Your task to perform on an android device: install app "LinkedIn" Image 0: 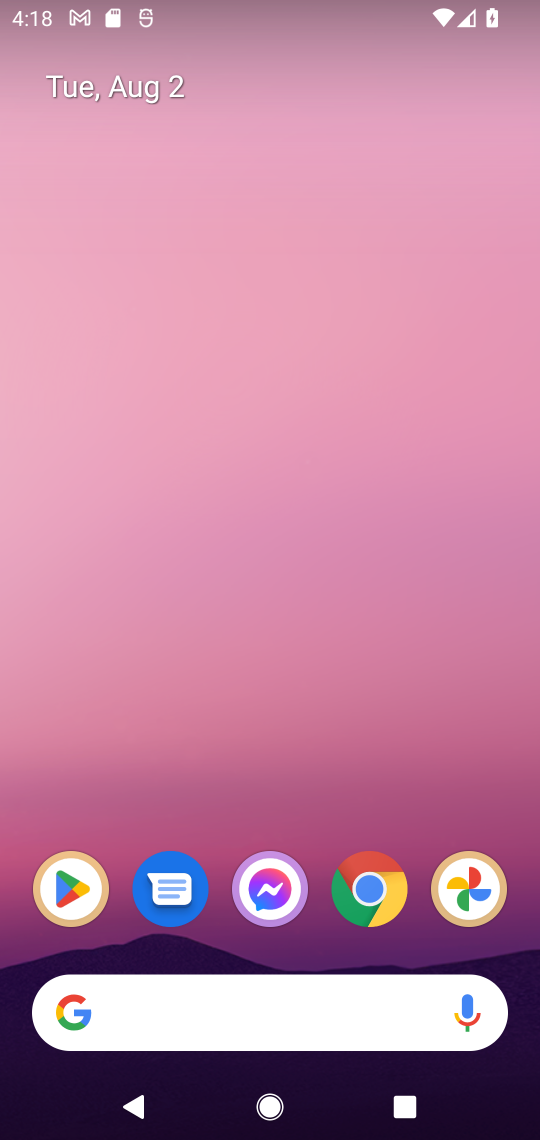
Step 0: press home button
Your task to perform on an android device: install app "LinkedIn" Image 1: 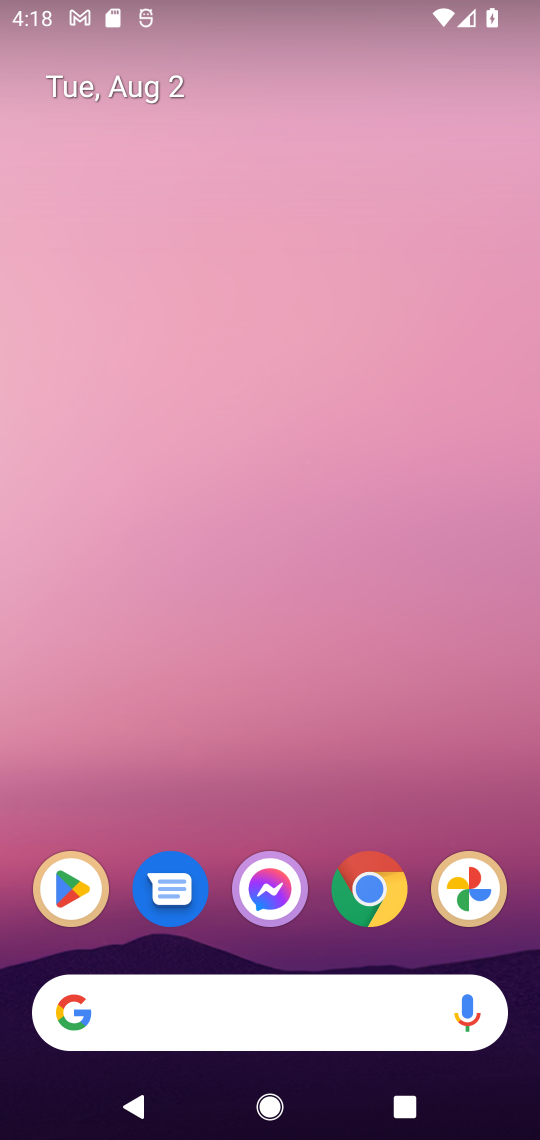
Step 1: drag from (415, 807) to (398, 99)
Your task to perform on an android device: install app "LinkedIn" Image 2: 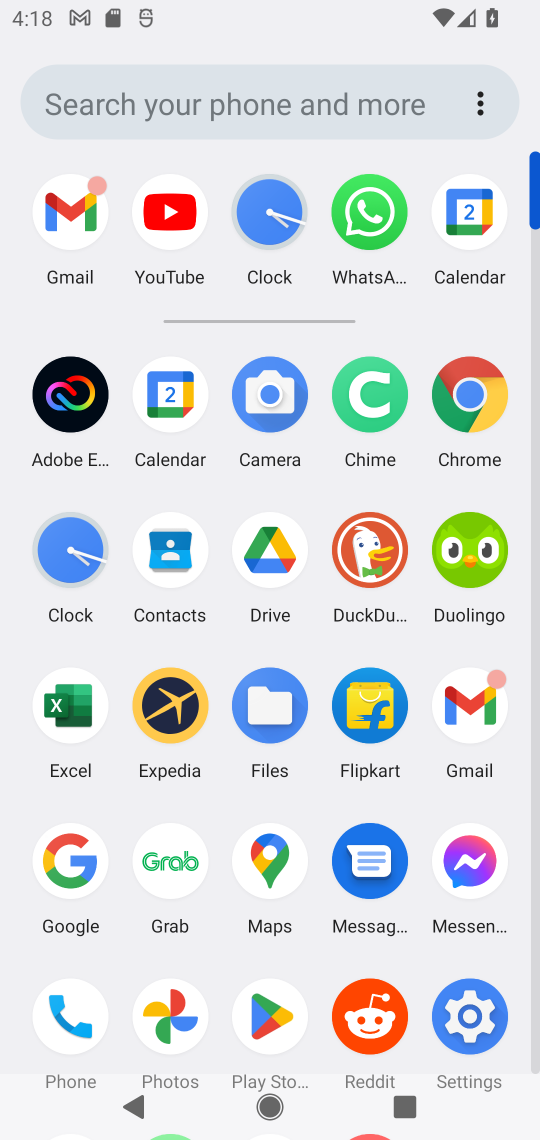
Step 2: click (270, 1039)
Your task to perform on an android device: install app "LinkedIn" Image 3: 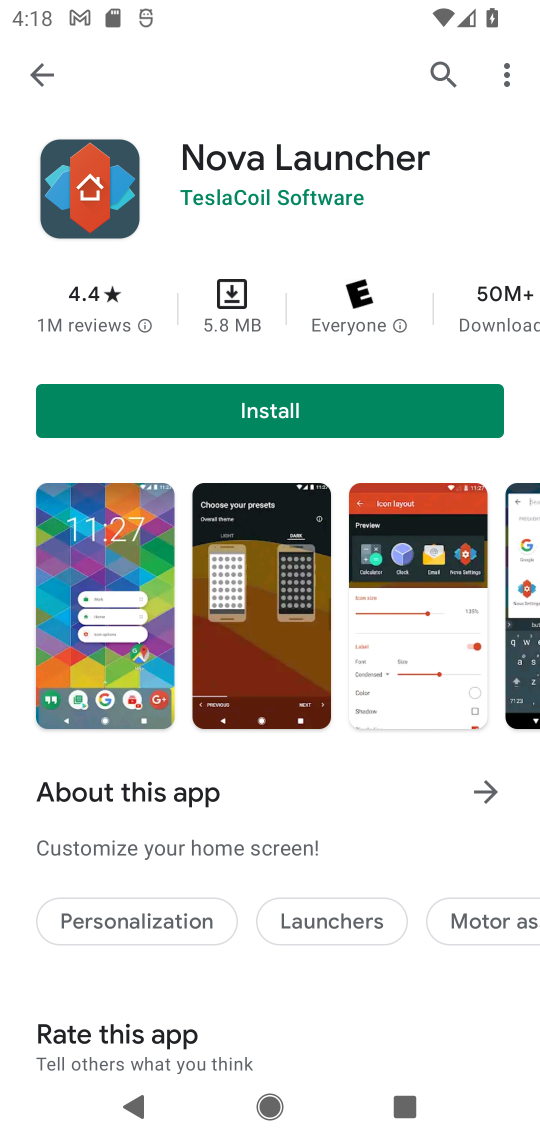
Step 3: click (444, 65)
Your task to perform on an android device: install app "LinkedIn" Image 4: 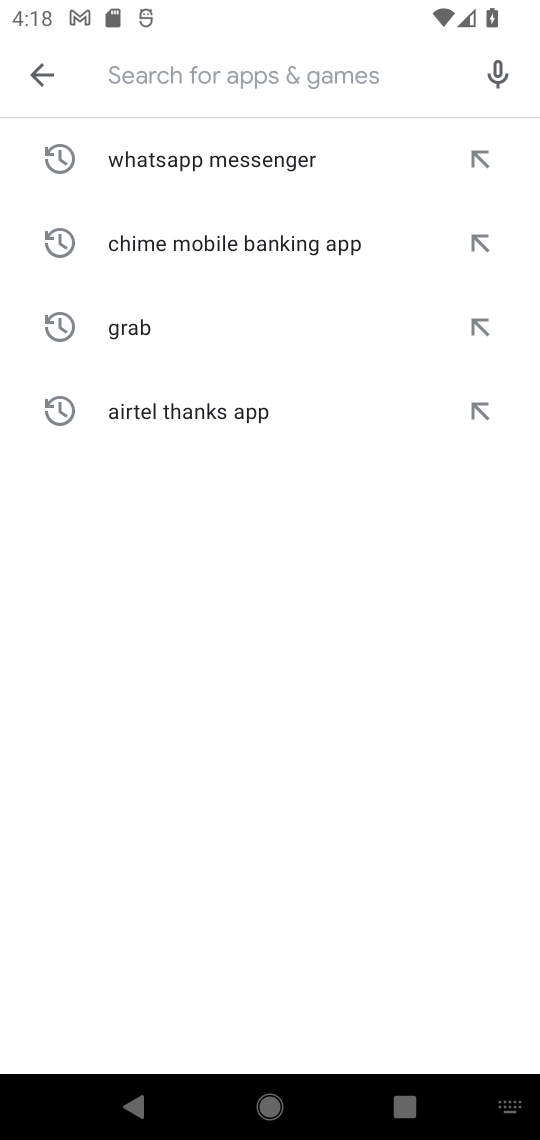
Step 4: type "linkedin"
Your task to perform on an android device: install app "LinkedIn" Image 5: 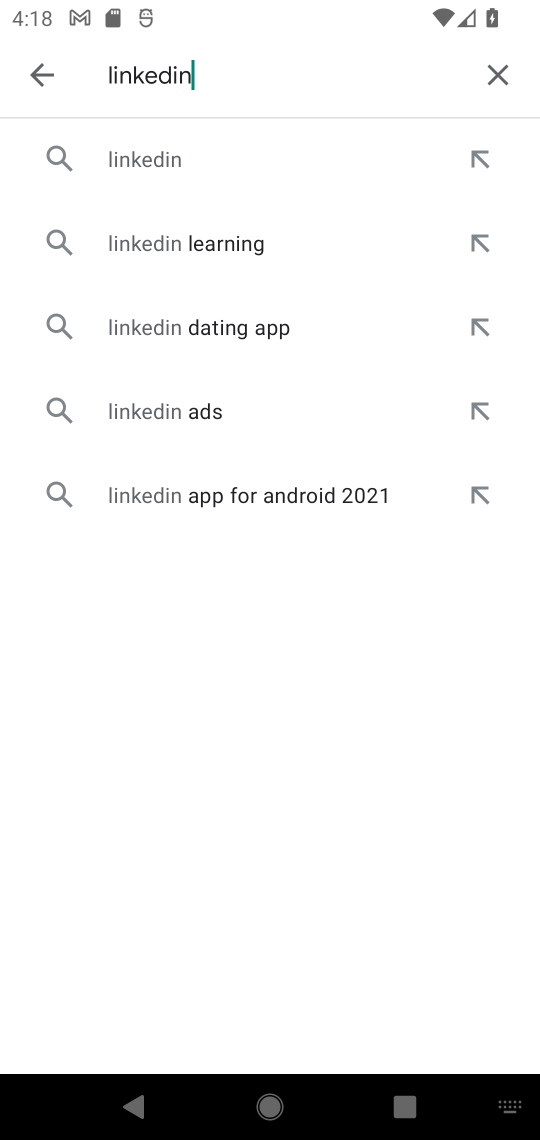
Step 5: click (214, 157)
Your task to perform on an android device: install app "LinkedIn" Image 6: 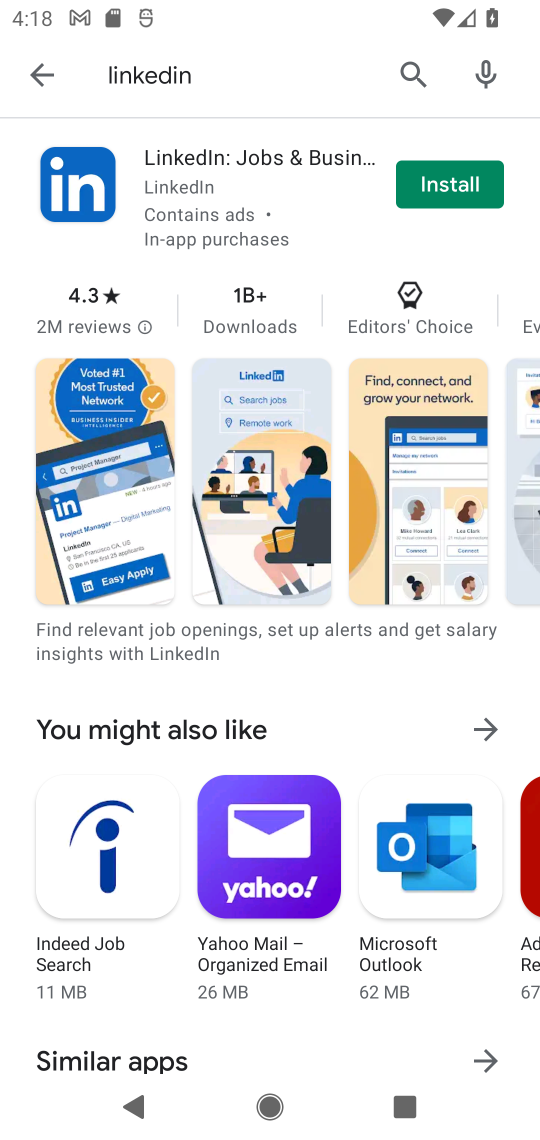
Step 6: click (464, 181)
Your task to perform on an android device: install app "LinkedIn" Image 7: 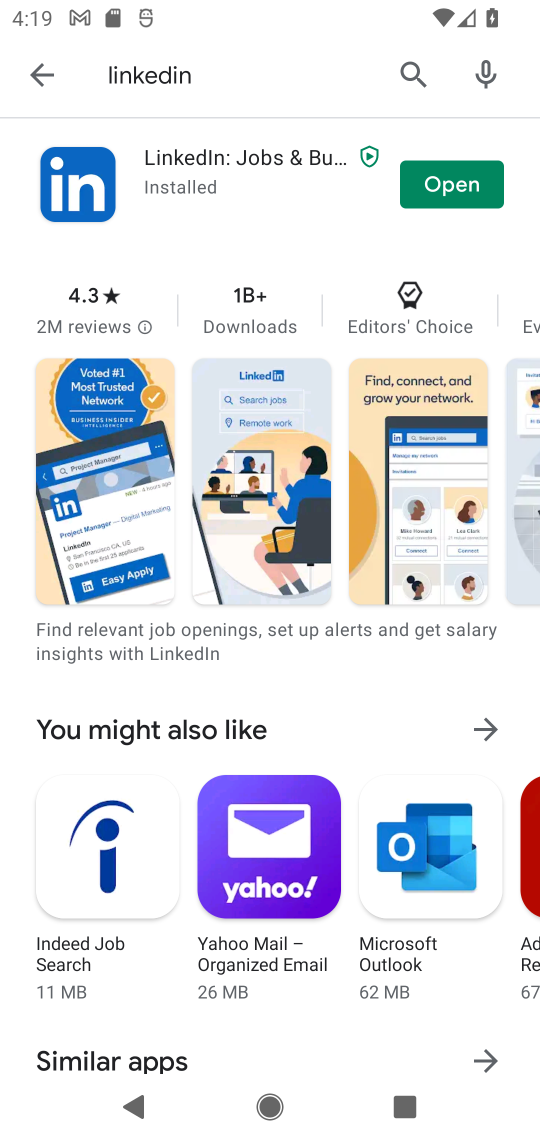
Step 7: task complete